Your task to perform on an android device: toggle data saver in the chrome app Image 0: 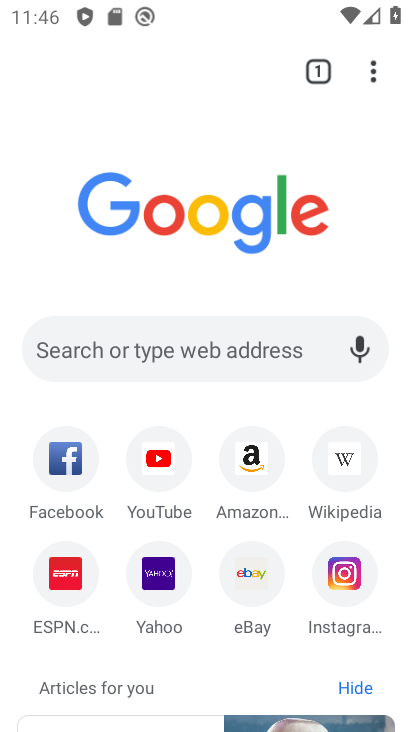
Step 0: press home button
Your task to perform on an android device: toggle data saver in the chrome app Image 1: 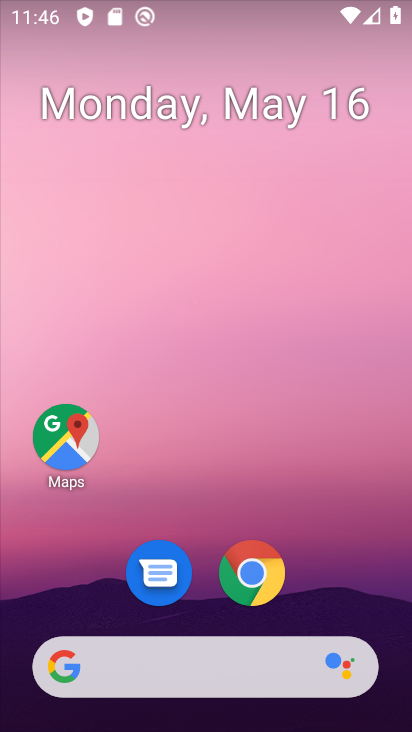
Step 1: click (250, 604)
Your task to perform on an android device: toggle data saver in the chrome app Image 2: 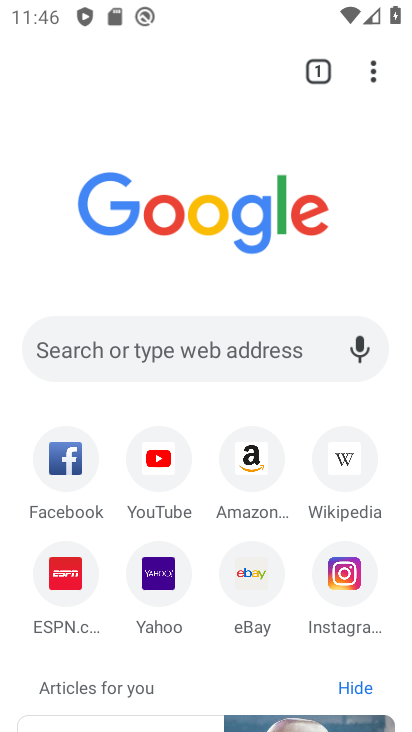
Step 2: drag from (374, 79) to (150, 609)
Your task to perform on an android device: toggle data saver in the chrome app Image 3: 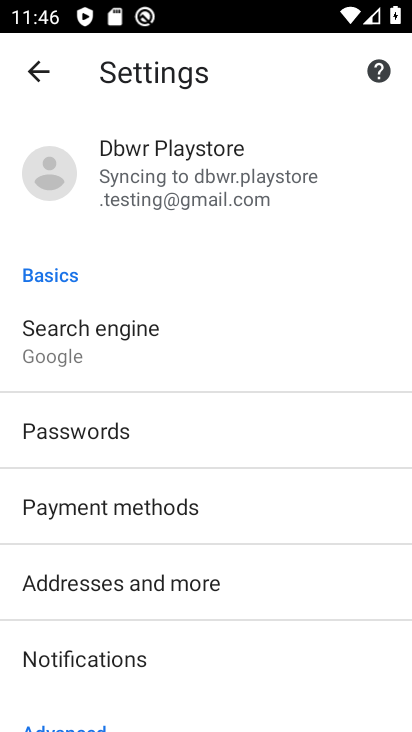
Step 3: drag from (172, 640) to (205, 348)
Your task to perform on an android device: toggle data saver in the chrome app Image 4: 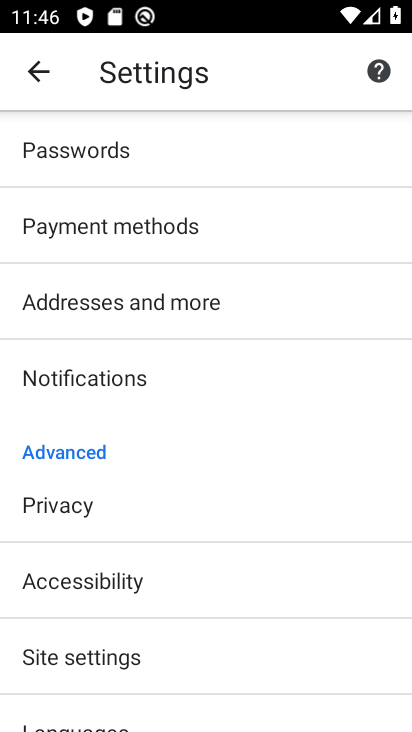
Step 4: drag from (77, 645) to (107, 376)
Your task to perform on an android device: toggle data saver in the chrome app Image 5: 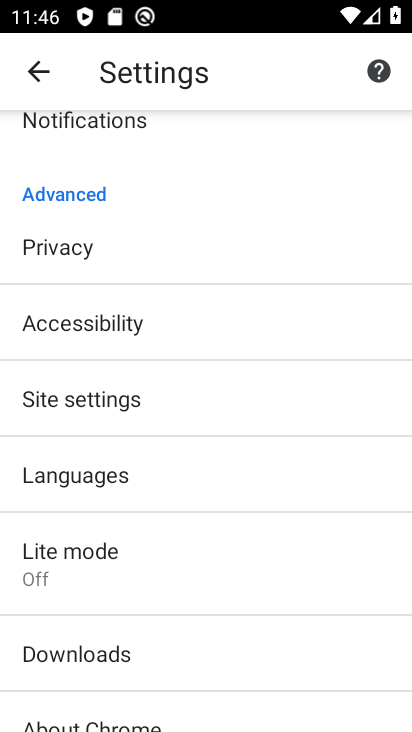
Step 5: click (72, 587)
Your task to perform on an android device: toggle data saver in the chrome app Image 6: 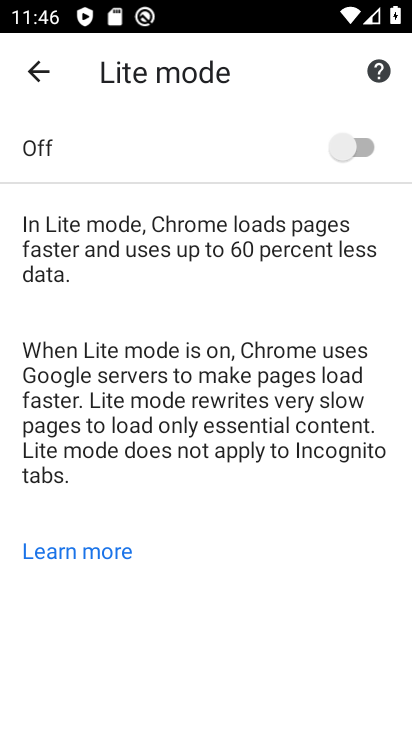
Step 6: click (354, 149)
Your task to perform on an android device: toggle data saver in the chrome app Image 7: 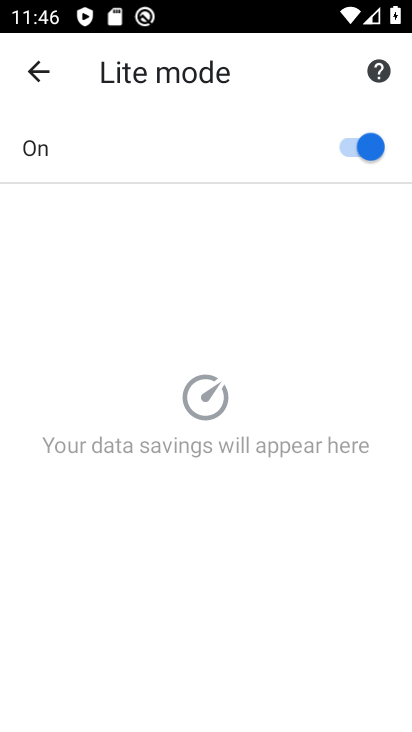
Step 7: task complete